Your task to perform on an android device: Go to location settings Image 0: 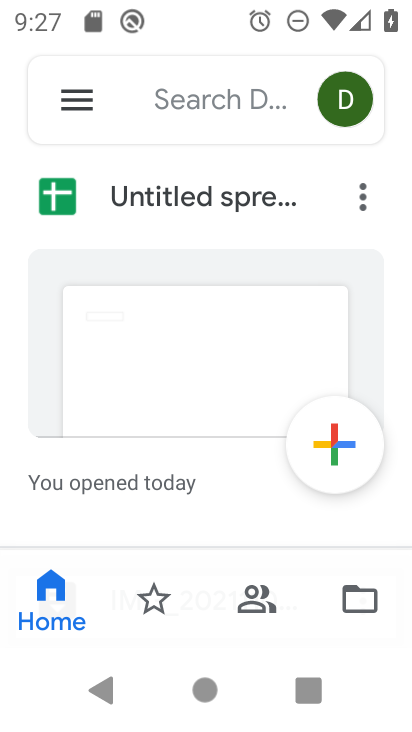
Step 0: press home button
Your task to perform on an android device: Go to location settings Image 1: 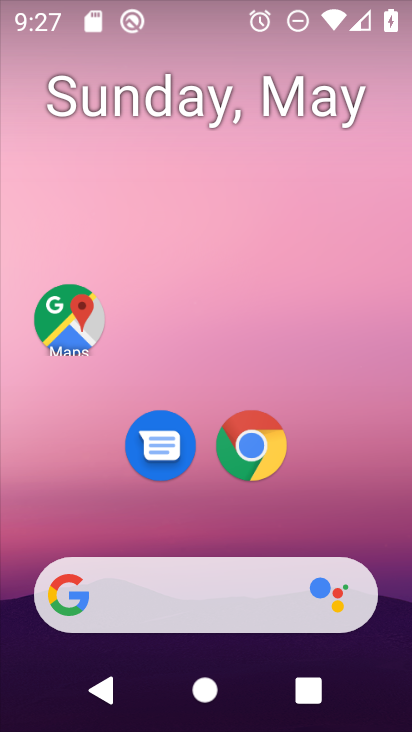
Step 1: drag from (254, 559) to (258, 137)
Your task to perform on an android device: Go to location settings Image 2: 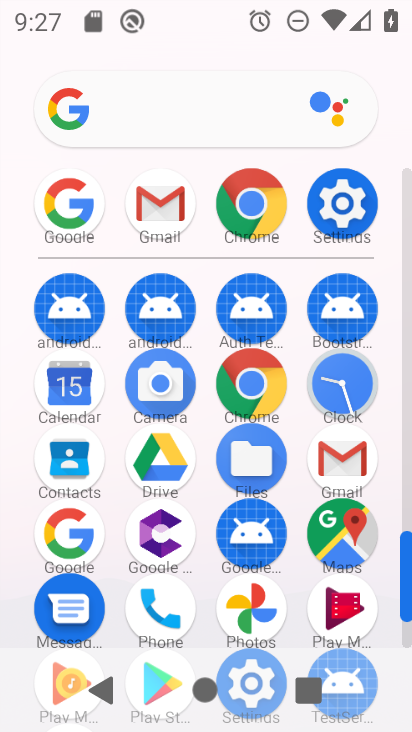
Step 2: click (356, 239)
Your task to perform on an android device: Go to location settings Image 3: 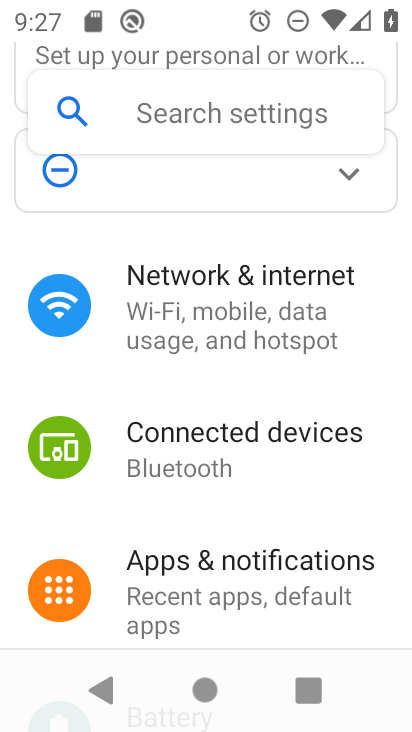
Step 3: drag from (266, 496) to (275, 422)
Your task to perform on an android device: Go to location settings Image 4: 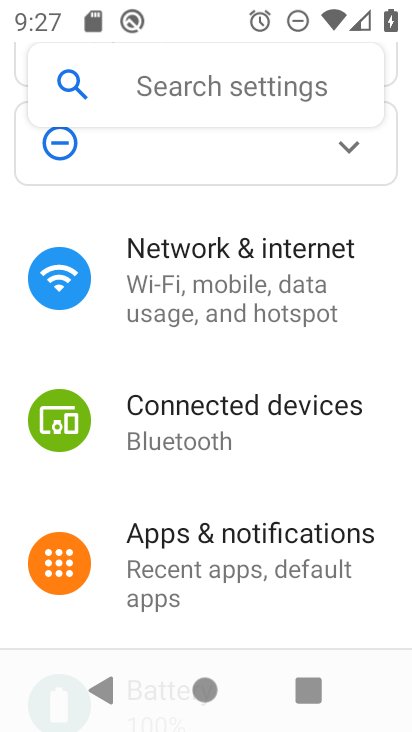
Step 4: drag from (278, 516) to (296, 32)
Your task to perform on an android device: Go to location settings Image 5: 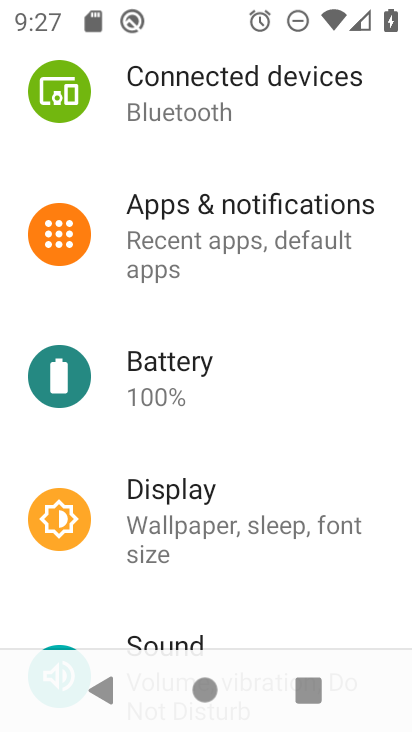
Step 5: drag from (294, 429) to (298, 256)
Your task to perform on an android device: Go to location settings Image 6: 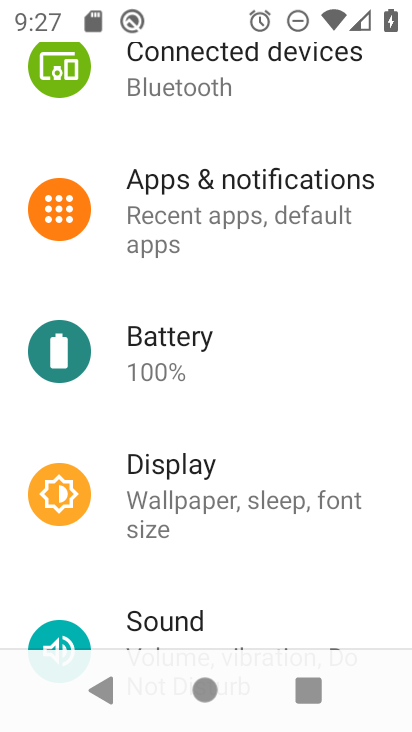
Step 6: drag from (250, 481) to (280, 284)
Your task to perform on an android device: Go to location settings Image 7: 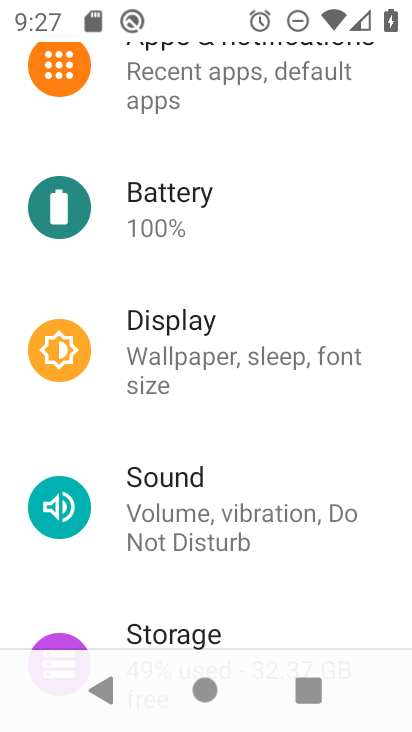
Step 7: drag from (260, 451) to (281, 118)
Your task to perform on an android device: Go to location settings Image 8: 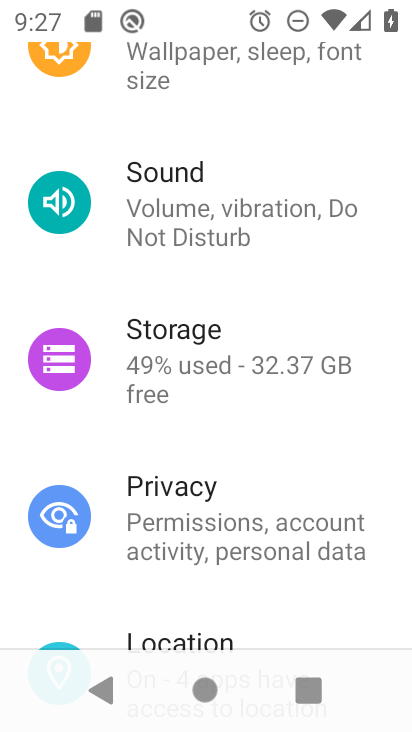
Step 8: drag from (281, 348) to (297, 204)
Your task to perform on an android device: Go to location settings Image 9: 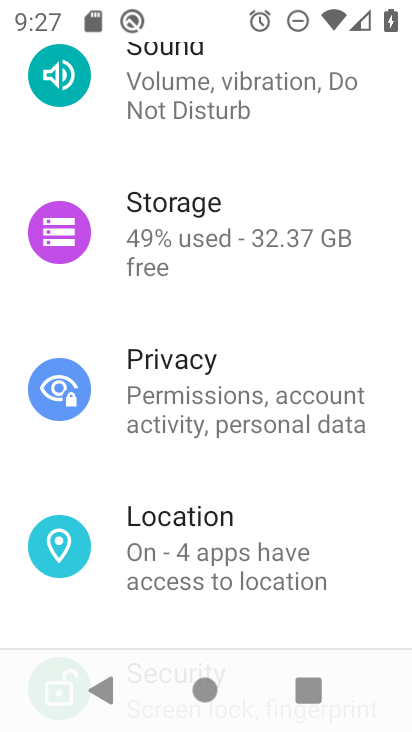
Step 9: drag from (258, 431) to (259, 225)
Your task to perform on an android device: Go to location settings Image 10: 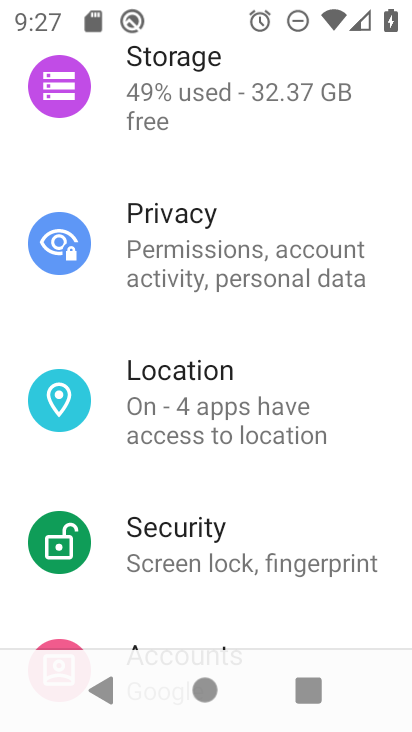
Step 10: click (272, 404)
Your task to perform on an android device: Go to location settings Image 11: 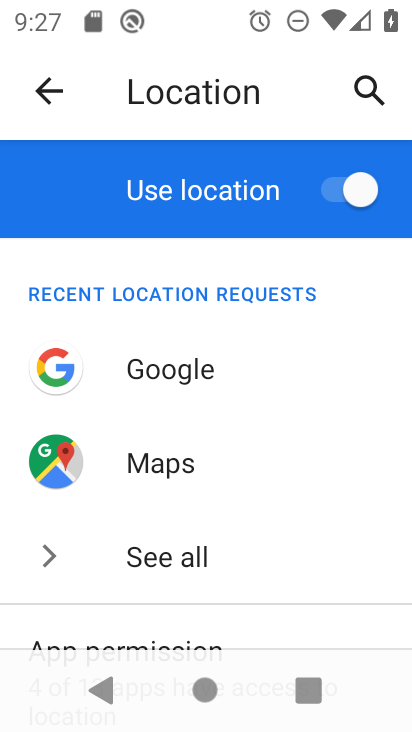
Step 11: task complete